Your task to perform on an android device: Go to ESPN.com Image 0: 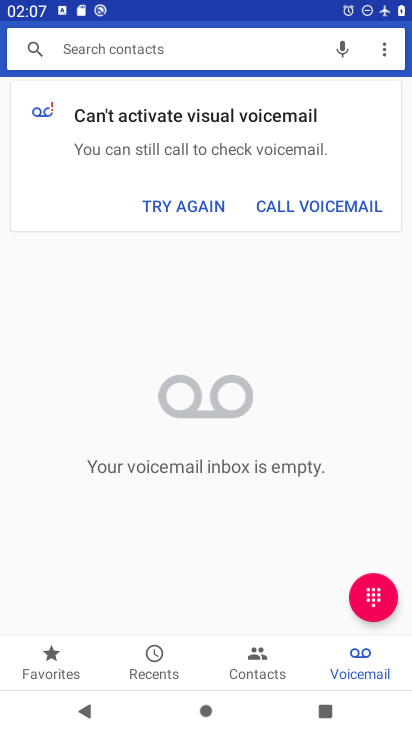
Step 0: press home button
Your task to perform on an android device: Go to ESPN.com Image 1: 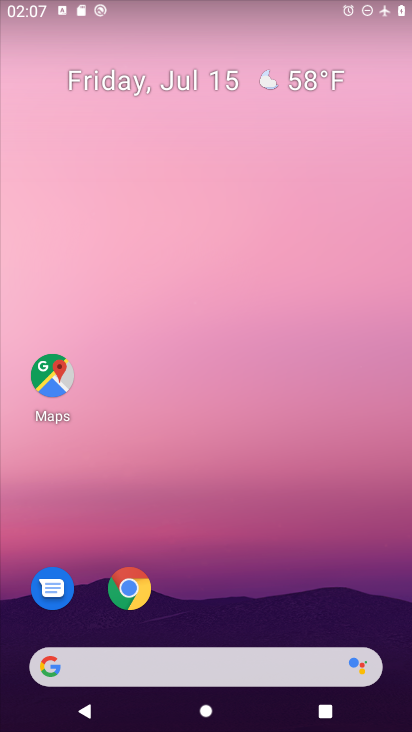
Step 1: click (129, 590)
Your task to perform on an android device: Go to ESPN.com Image 2: 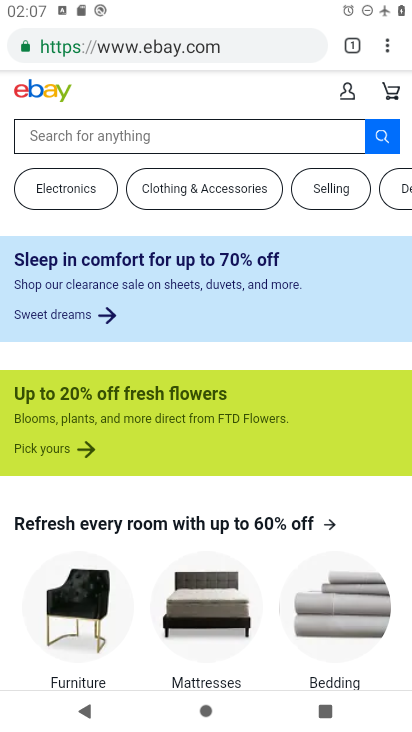
Step 2: click (270, 48)
Your task to perform on an android device: Go to ESPN.com Image 3: 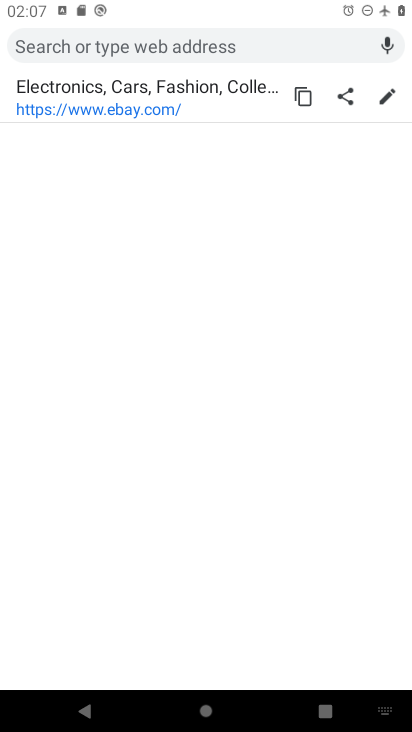
Step 3: type "ESPN.com"
Your task to perform on an android device: Go to ESPN.com Image 4: 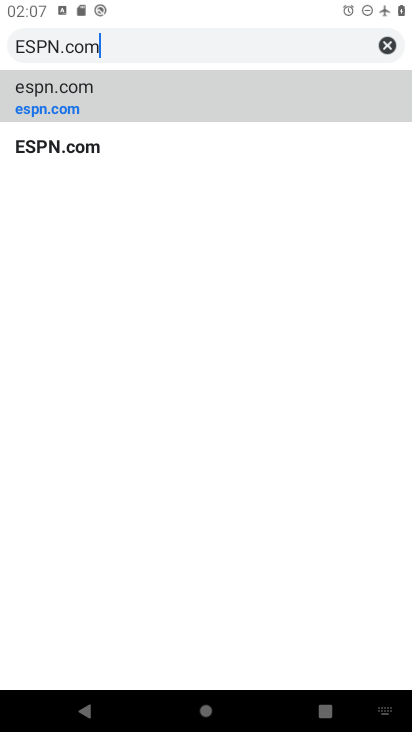
Step 4: click (58, 82)
Your task to perform on an android device: Go to ESPN.com Image 5: 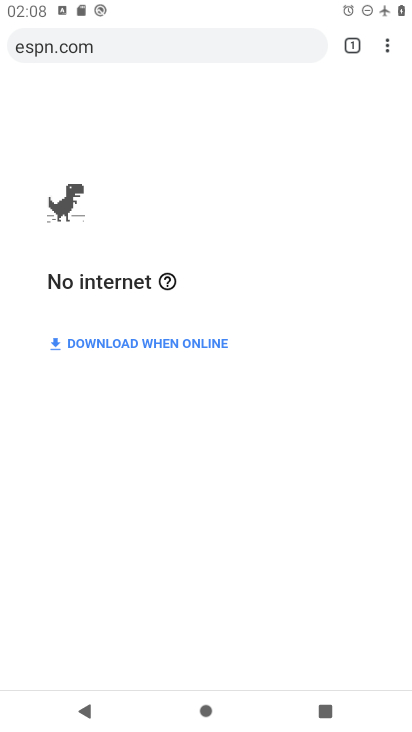
Step 5: task complete